Your task to perform on an android device: snooze an email in the gmail app Image 0: 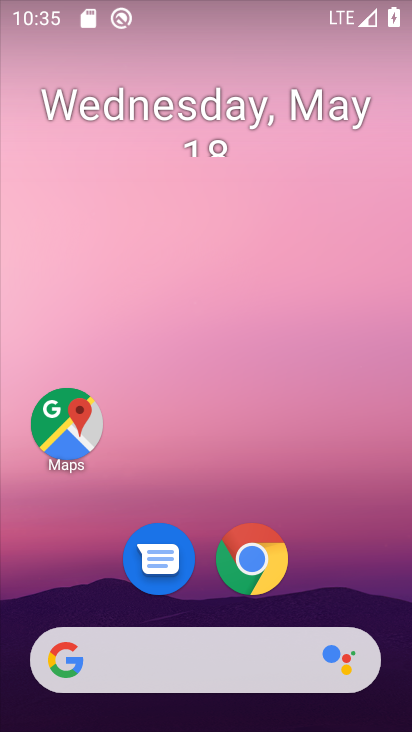
Step 0: drag from (221, 600) to (299, 17)
Your task to perform on an android device: snooze an email in the gmail app Image 1: 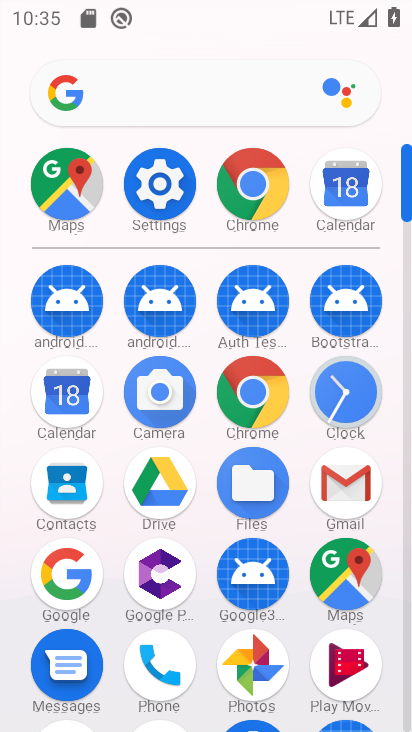
Step 1: click (343, 501)
Your task to perform on an android device: snooze an email in the gmail app Image 2: 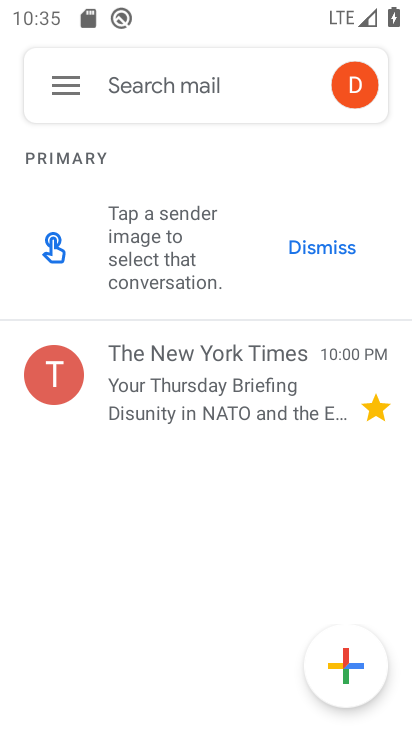
Step 2: click (52, 76)
Your task to perform on an android device: snooze an email in the gmail app Image 3: 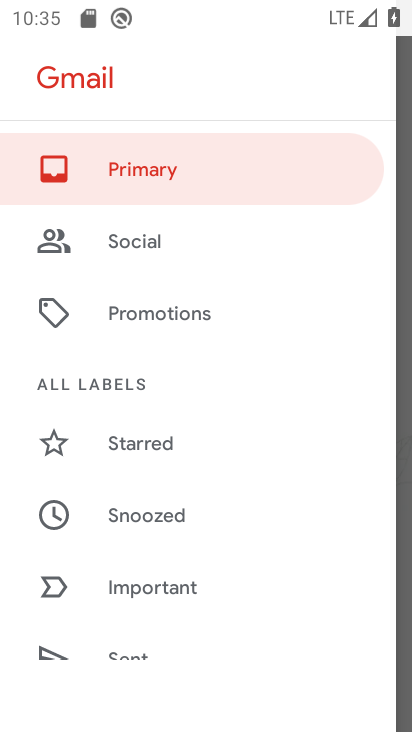
Step 3: drag from (167, 516) to (234, 132)
Your task to perform on an android device: snooze an email in the gmail app Image 4: 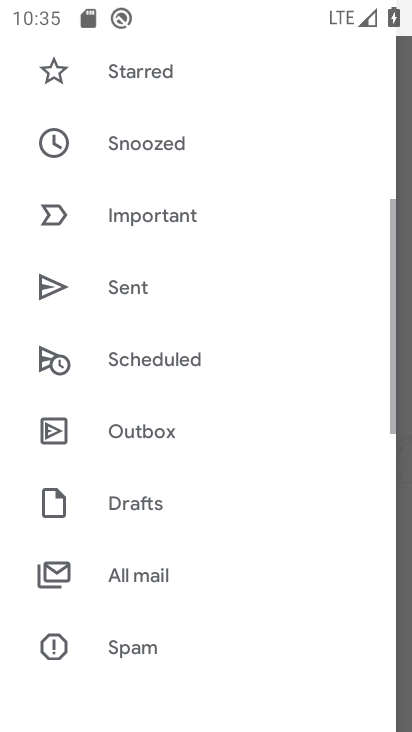
Step 4: click (132, 588)
Your task to perform on an android device: snooze an email in the gmail app Image 5: 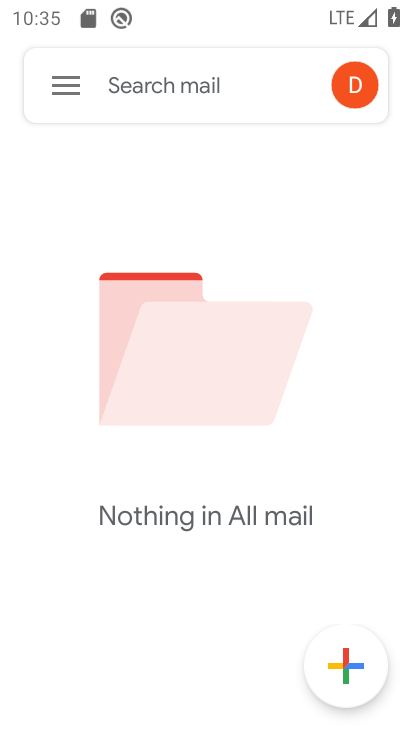
Step 5: task complete